Your task to perform on an android device: turn off airplane mode Image 0: 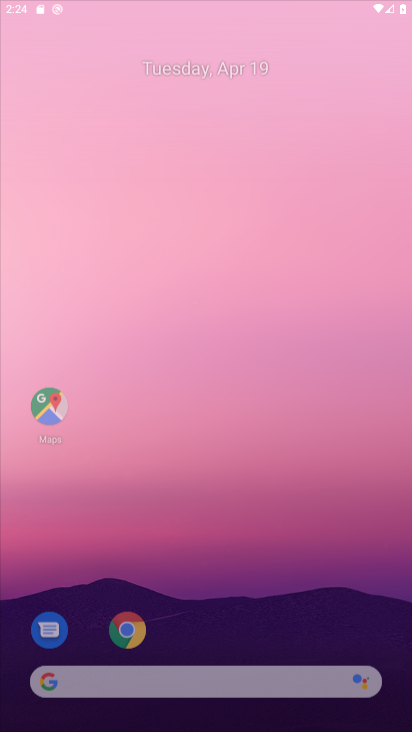
Step 0: click (97, 123)
Your task to perform on an android device: turn off airplane mode Image 1: 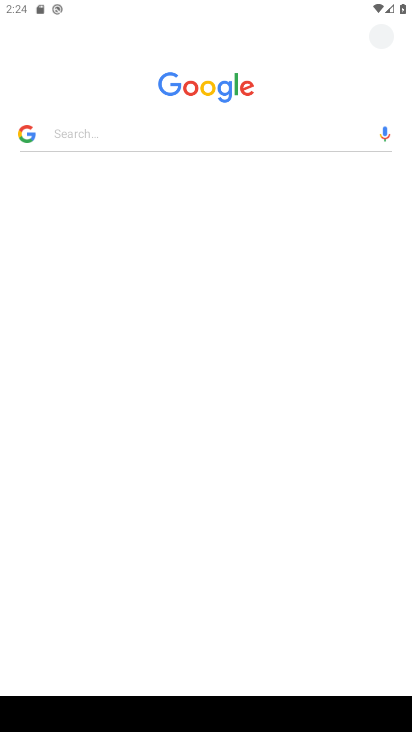
Step 1: press home button
Your task to perform on an android device: turn off airplane mode Image 2: 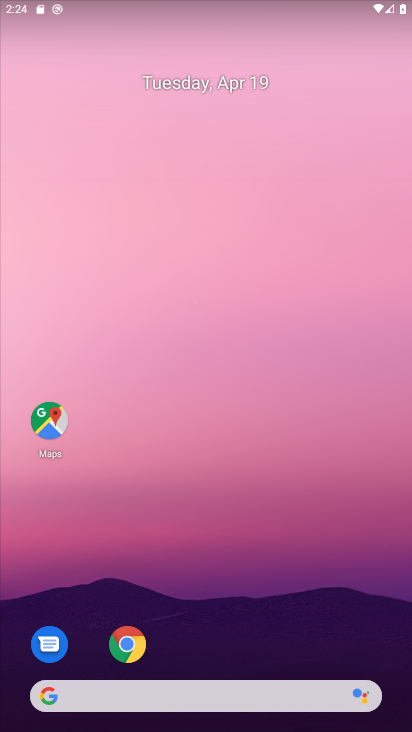
Step 2: drag from (242, 563) to (40, 119)
Your task to perform on an android device: turn off airplane mode Image 3: 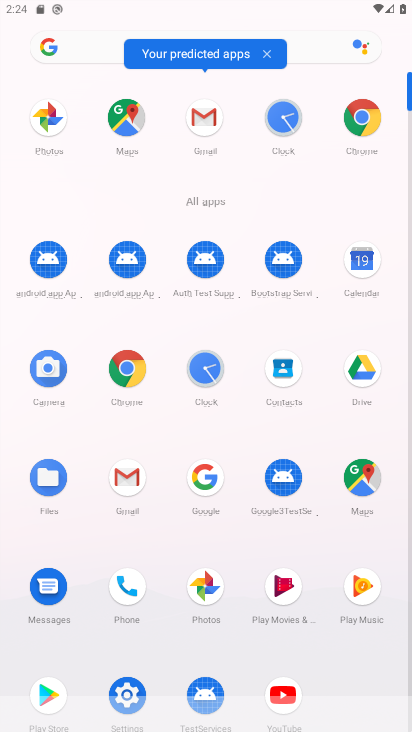
Step 3: click (128, 683)
Your task to perform on an android device: turn off airplane mode Image 4: 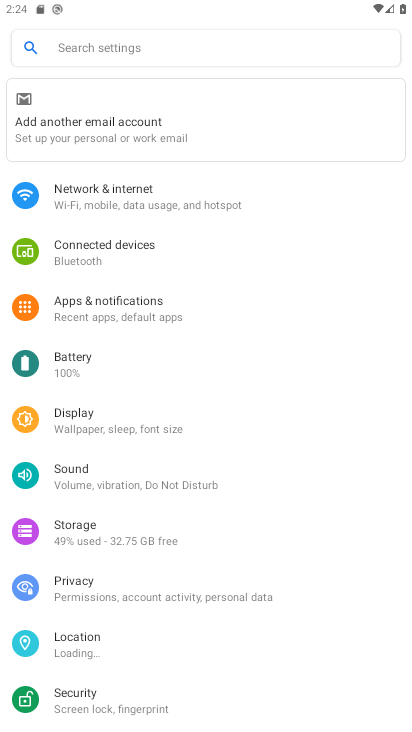
Step 4: click (118, 204)
Your task to perform on an android device: turn off airplane mode Image 5: 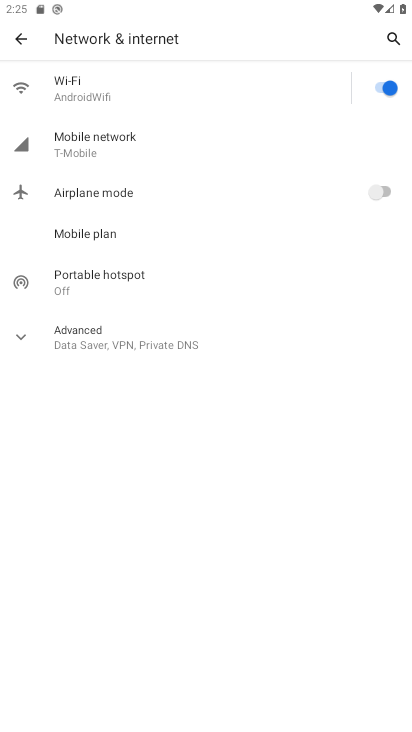
Step 5: task complete